Your task to perform on an android device: turn on improve location accuracy Image 0: 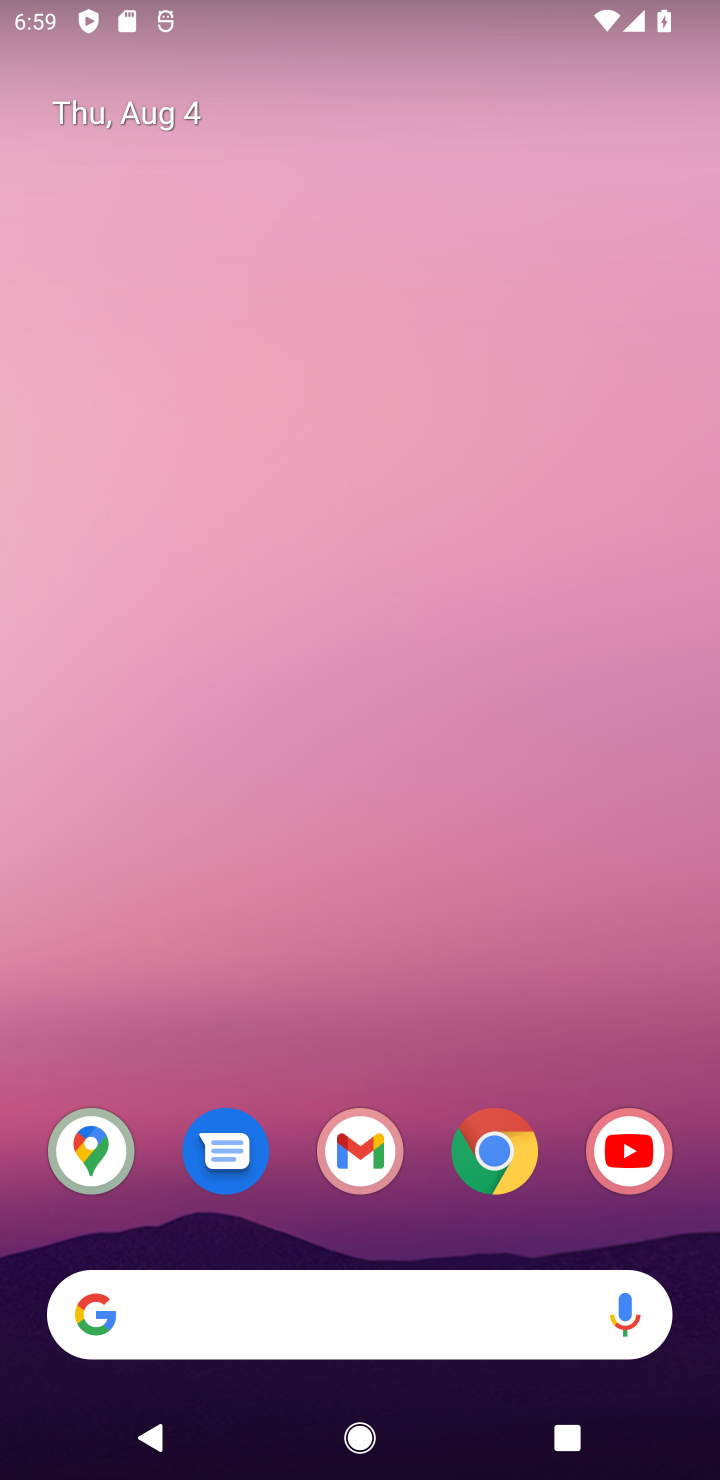
Step 0: press back button
Your task to perform on an android device: turn on improve location accuracy Image 1: 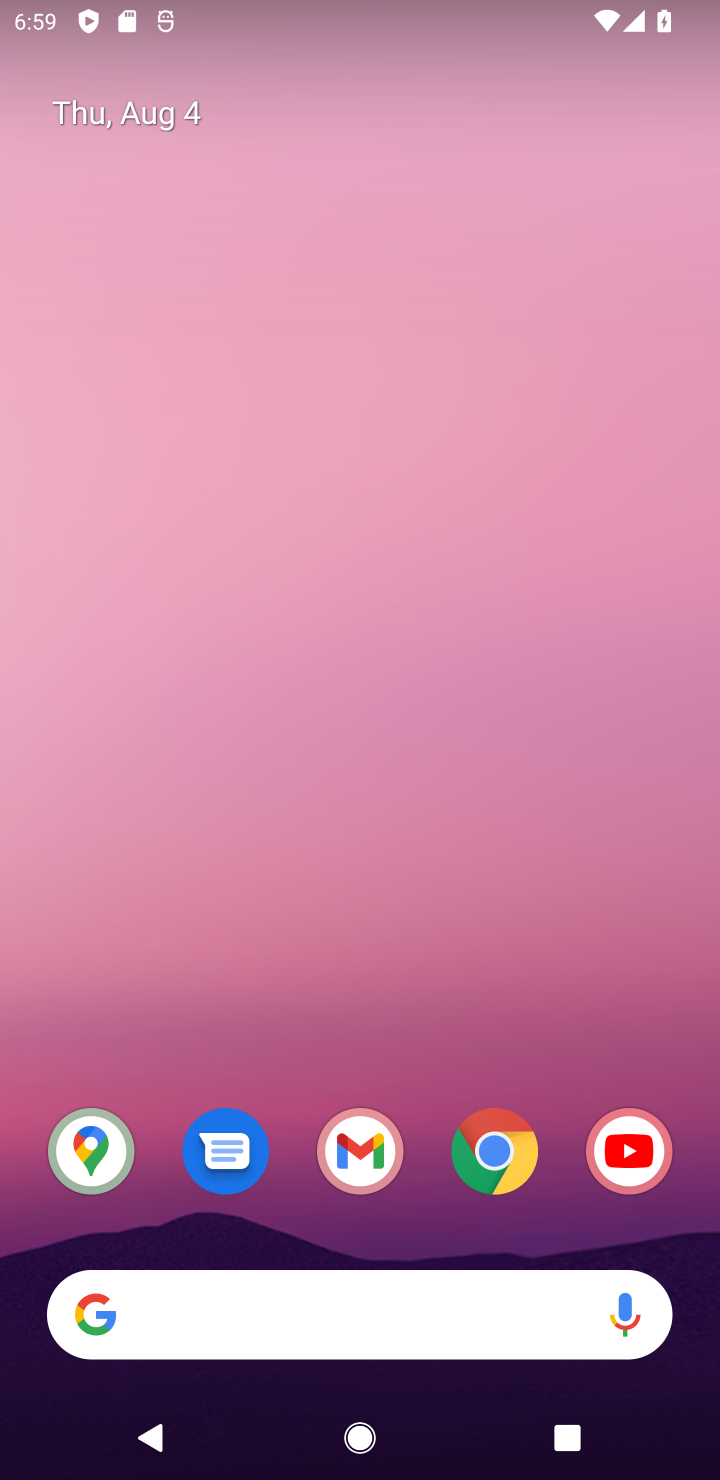
Step 1: drag from (421, 1078) to (366, 127)
Your task to perform on an android device: turn on improve location accuracy Image 2: 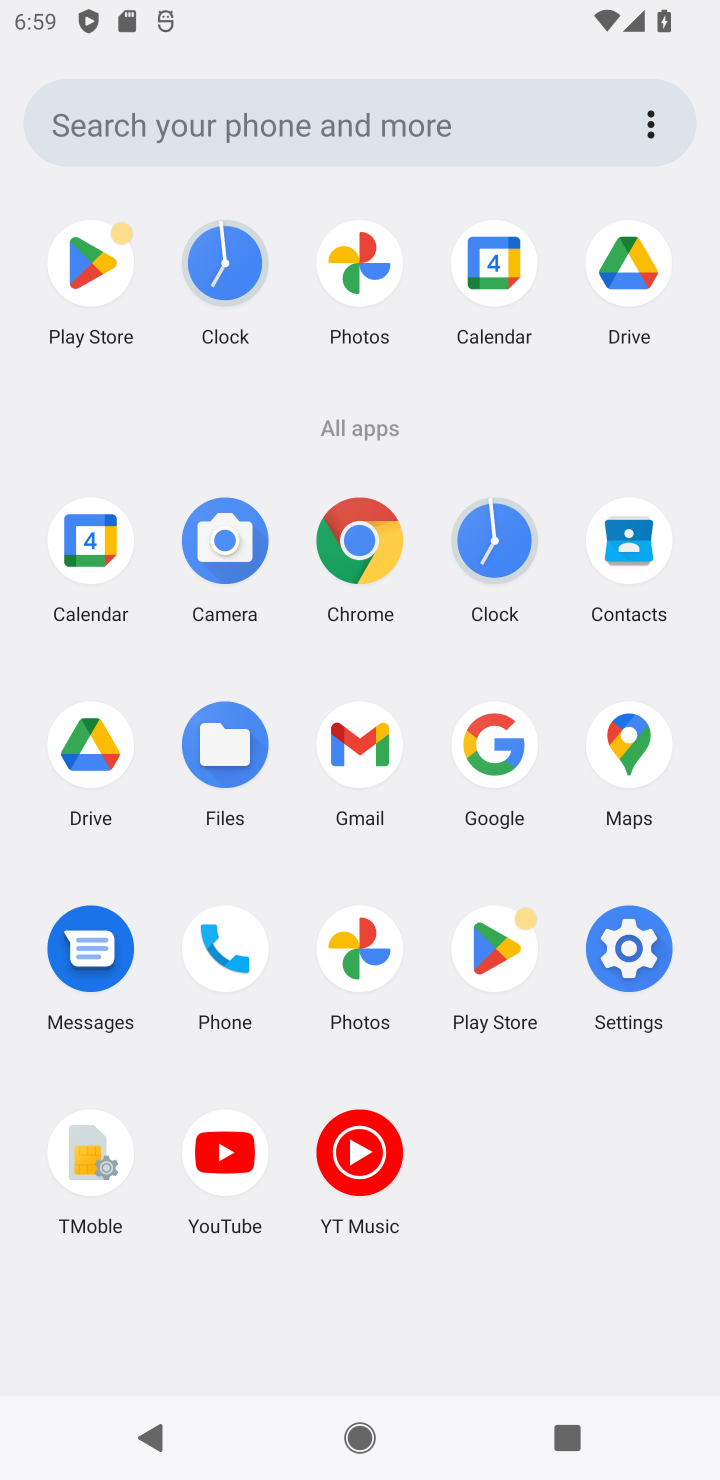
Step 2: click (647, 979)
Your task to perform on an android device: turn on improve location accuracy Image 3: 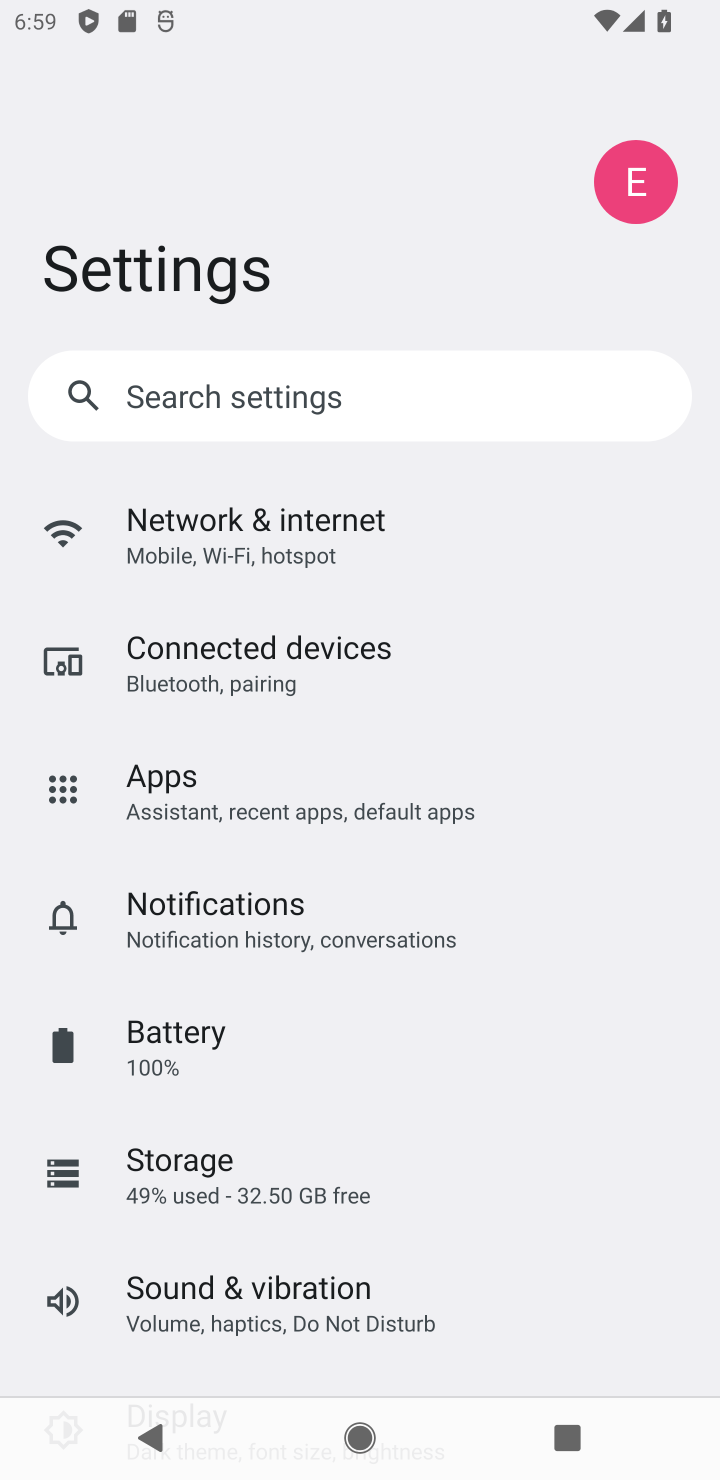
Step 3: drag from (463, 1341) to (404, 174)
Your task to perform on an android device: turn on improve location accuracy Image 4: 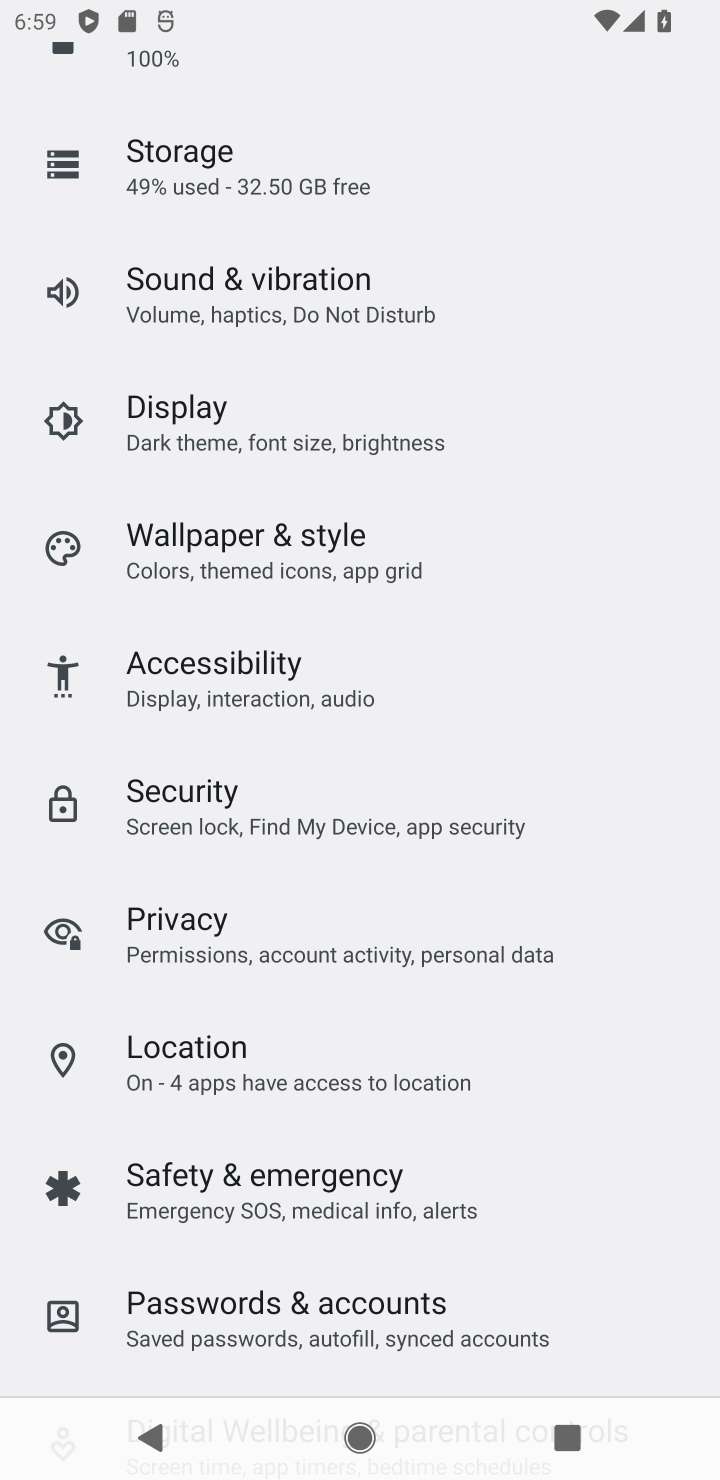
Step 4: click (367, 1079)
Your task to perform on an android device: turn on improve location accuracy Image 5: 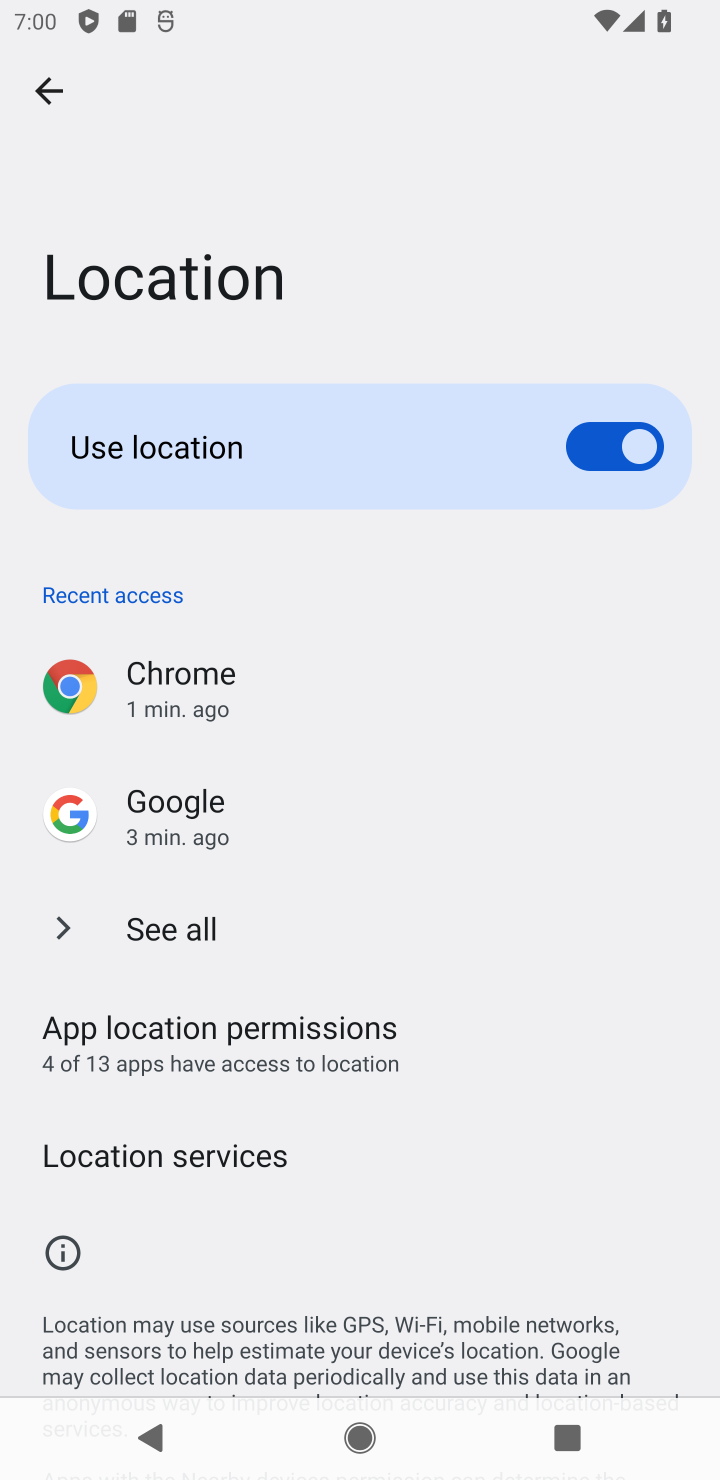
Step 5: click (407, 1183)
Your task to perform on an android device: turn on improve location accuracy Image 6: 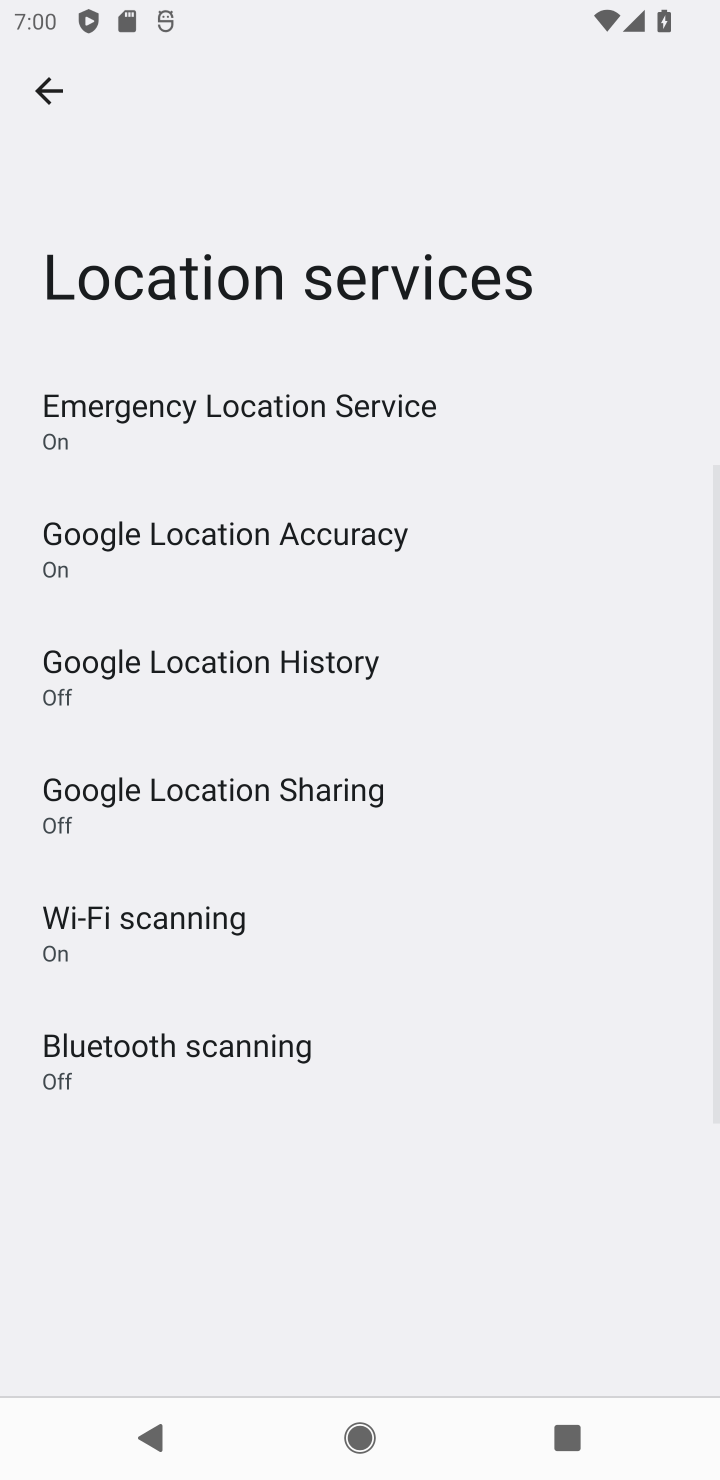
Step 6: click (441, 523)
Your task to perform on an android device: turn on improve location accuracy Image 7: 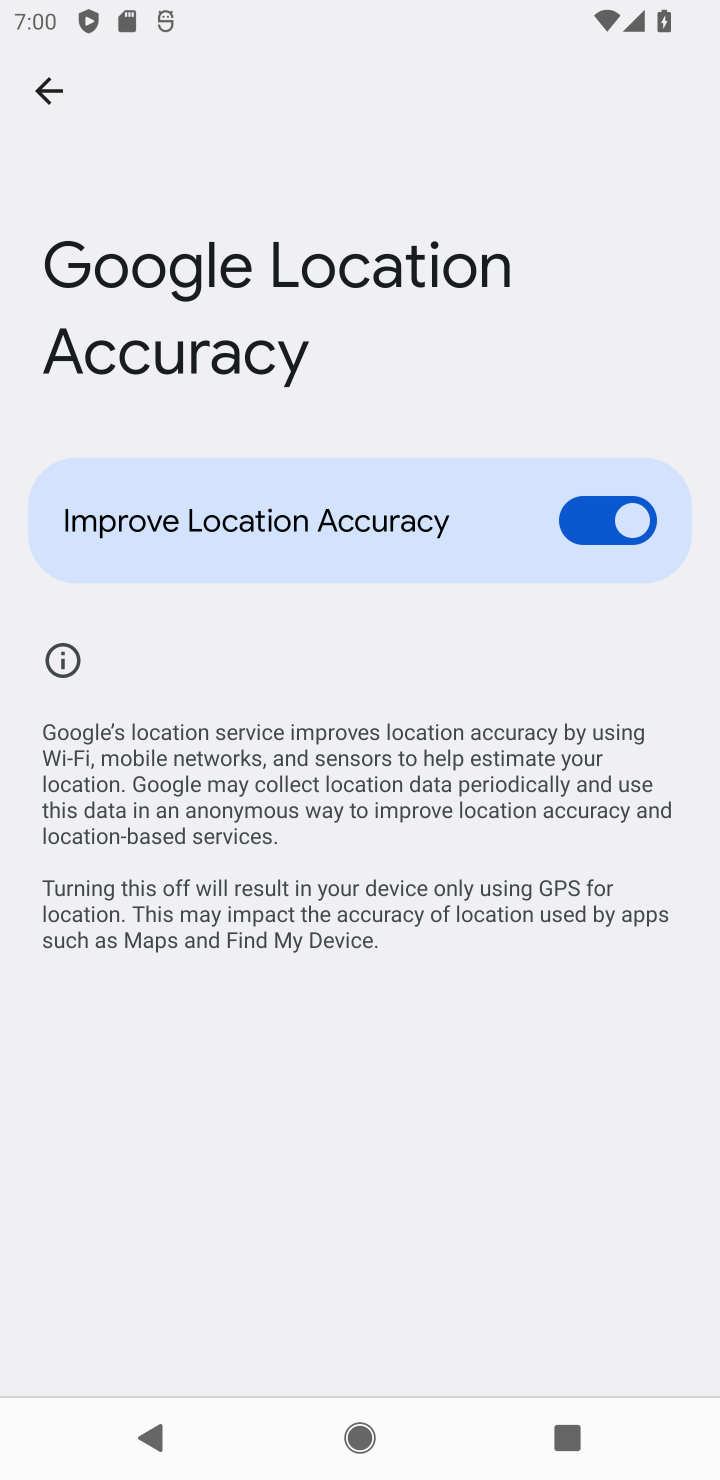
Step 7: task complete